Your task to perform on an android device: Open calendar and show me the third week of next month Image 0: 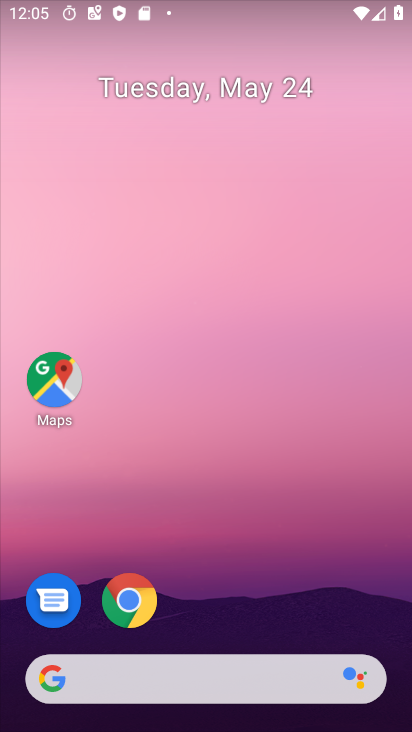
Step 0: drag from (251, 613) to (252, 182)
Your task to perform on an android device: Open calendar and show me the third week of next month Image 1: 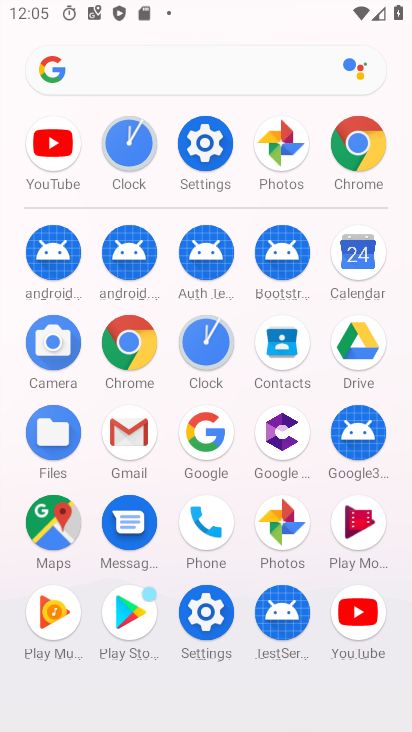
Step 1: click (356, 262)
Your task to perform on an android device: Open calendar and show me the third week of next month Image 2: 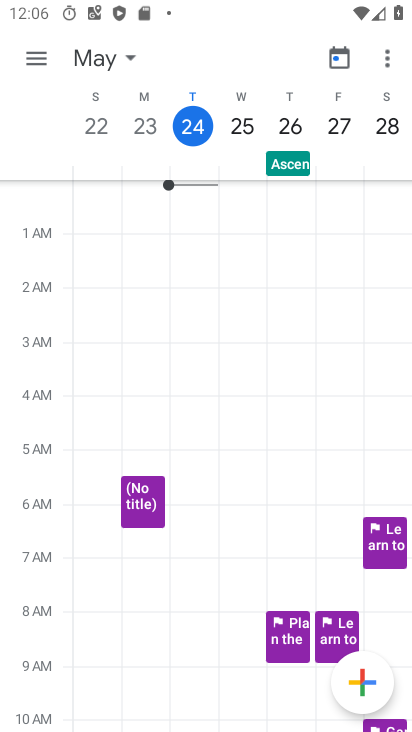
Step 2: click (108, 58)
Your task to perform on an android device: Open calendar and show me the third week of next month Image 3: 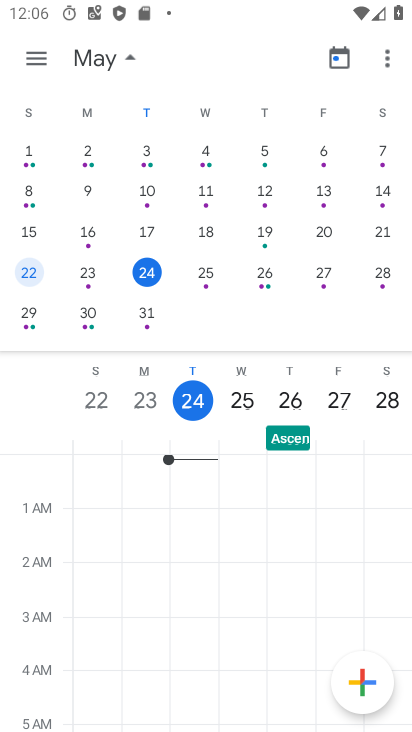
Step 3: drag from (354, 248) to (4, 202)
Your task to perform on an android device: Open calendar and show me the third week of next month Image 4: 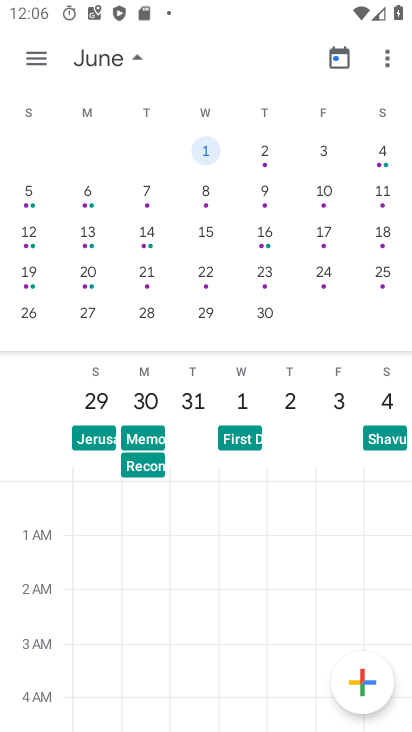
Step 4: click (36, 274)
Your task to perform on an android device: Open calendar and show me the third week of next month Image 5: 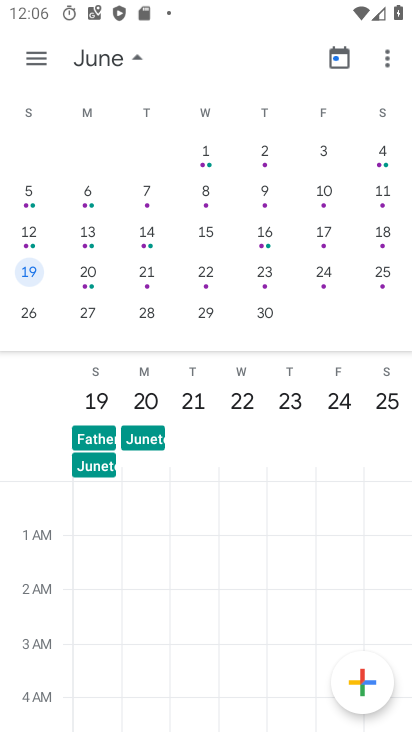
Step 5: task complete